Your task to perform on an android device: make emails show in primary in the gmail app Image 0: 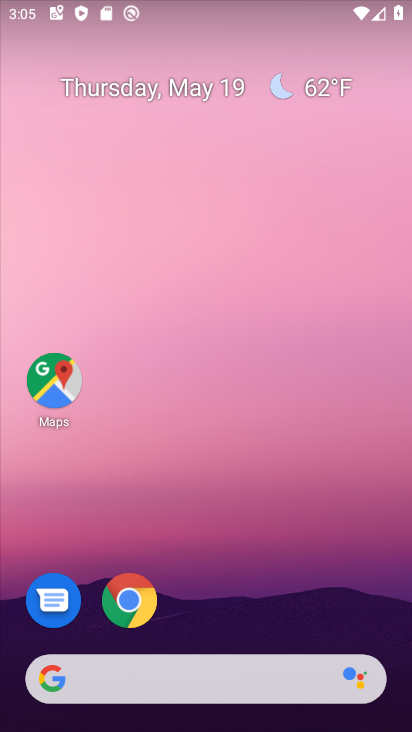
Step 0: drag from (46, 519) to (278, 126)
Your task to perform on an android device: make emails show in primary in the gmail app Image 1: 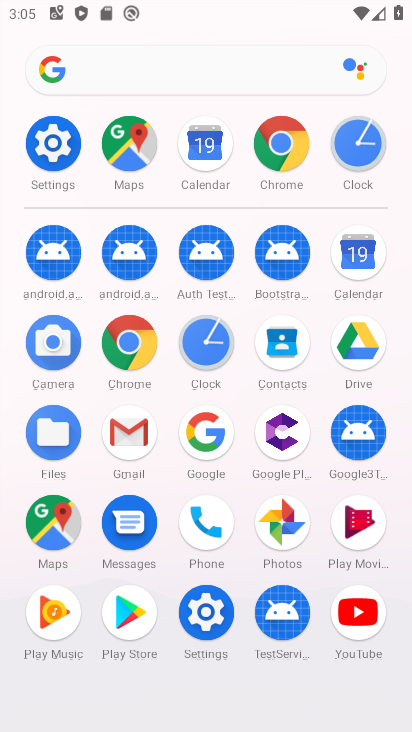
Step 1: click (122, 428)
Your task to perform on an android device: make emails show in primary in the gmail app Image 2: 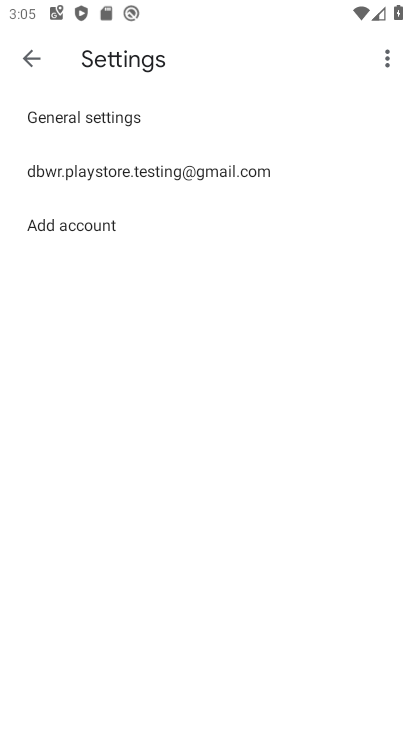
Step 2: click (34, 59)
Your task to perform on an android device: make emails show in primary in the gmail app Image 3: 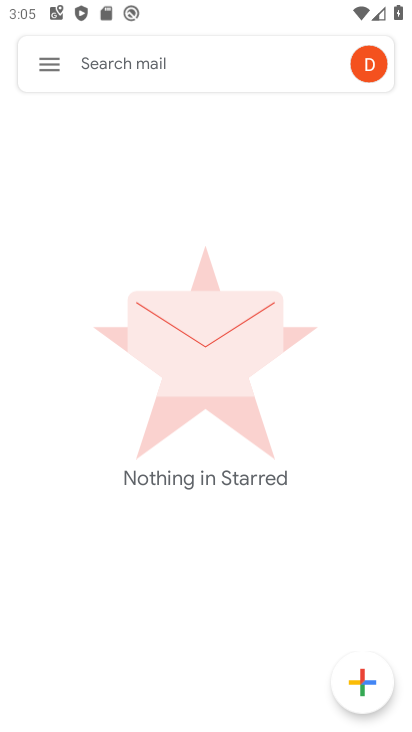
Step 3: click (42, 60)
Your task to perform on an android device: make emails show in primary in the gmail app Image 4: 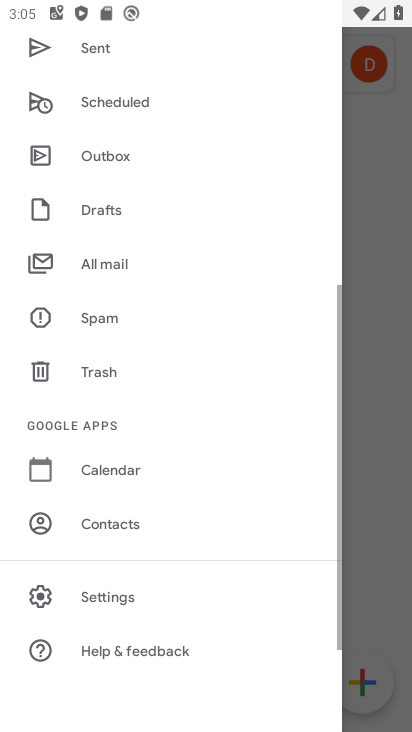
Step 4: drag from (100, 49) to (66, 561)
Your task to perform on an android device: make emails show in primary in the gmail app Image 5: 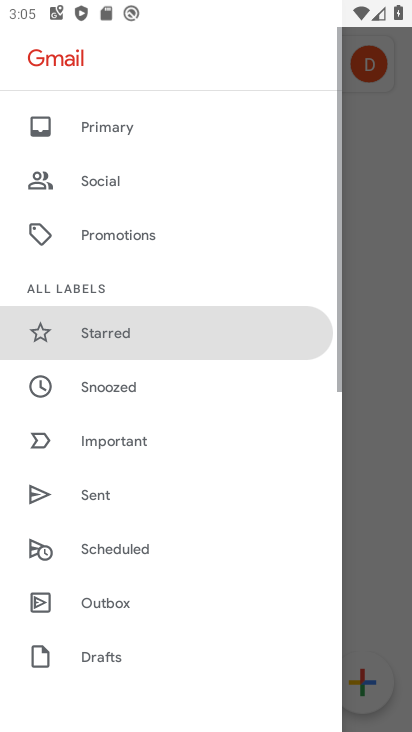
Step 5: drag from (120, 146) to (101, 511)
Your task to perform on an android device: make emails show in primary in the gmail app Image 6: 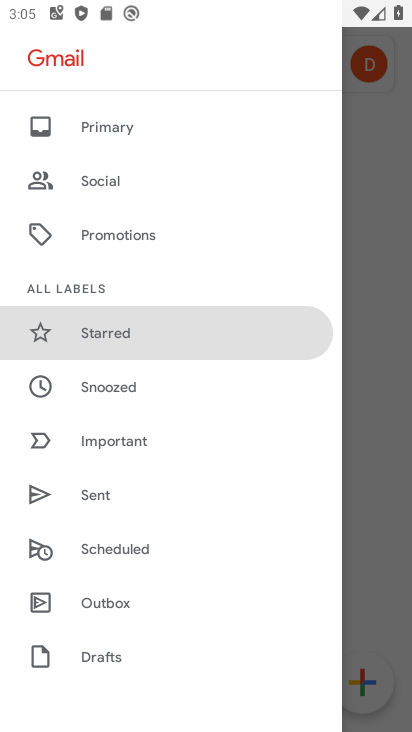
Step 6: click (102, 124)
Your task to perform on an android device: make emails show in primary in the gmail app Image 7: 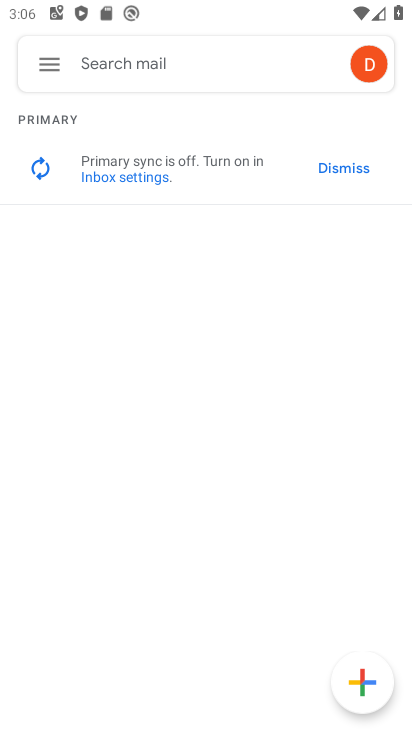
Step 7: task complete